Your task to perform on an android device: Search for good Indian restaurants Image 0: 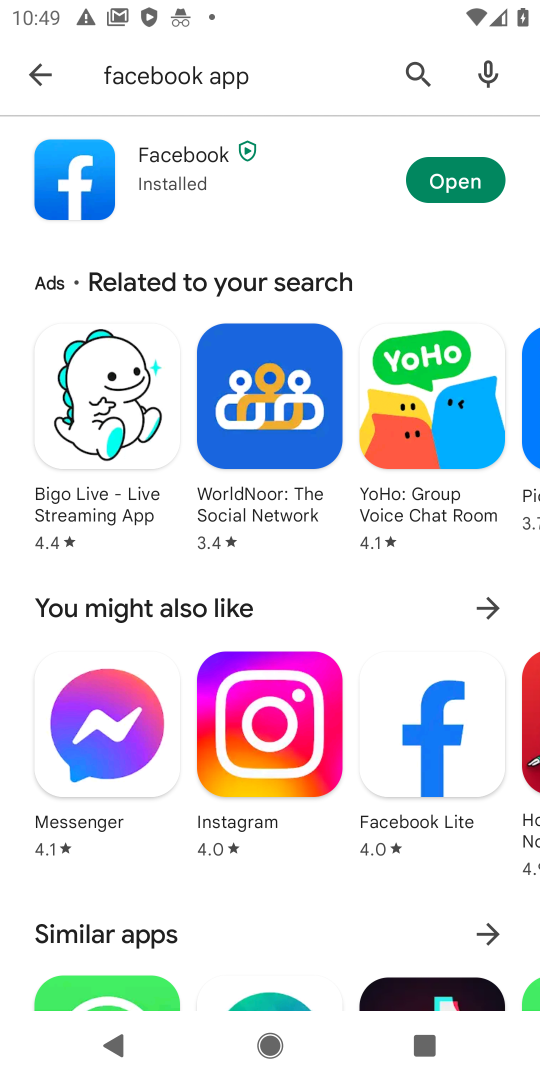
Step 0: press home button
Your task to perform on an android device: Search for good Indian restaurants Image 1: 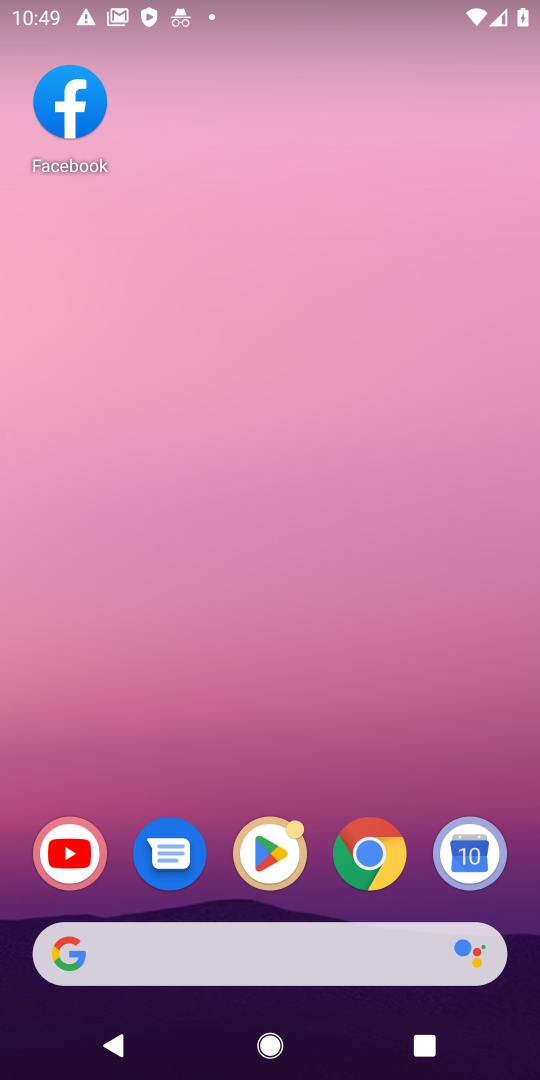
Step 1: click (337, 950)
Your task to perform on an android device: Search for good Indian restaurants Image 2: 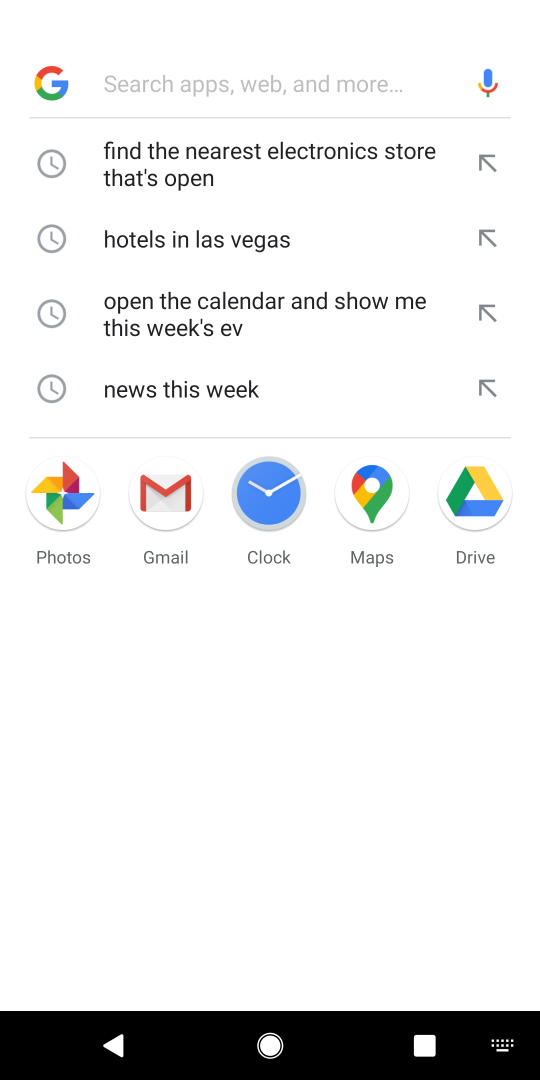
Step 2: type "good Indian restaurants"
Your task to perform on an android device: Search for good Indian restaurants Image 3: 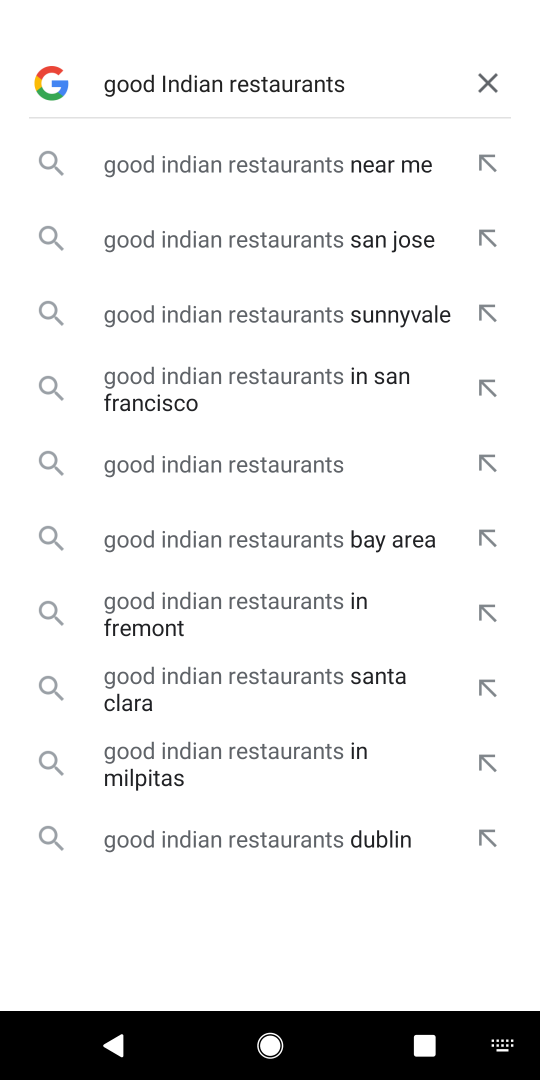
Step 3: press enter
Your task to perform on an android device: Search for good Indian restaurants Image 4: 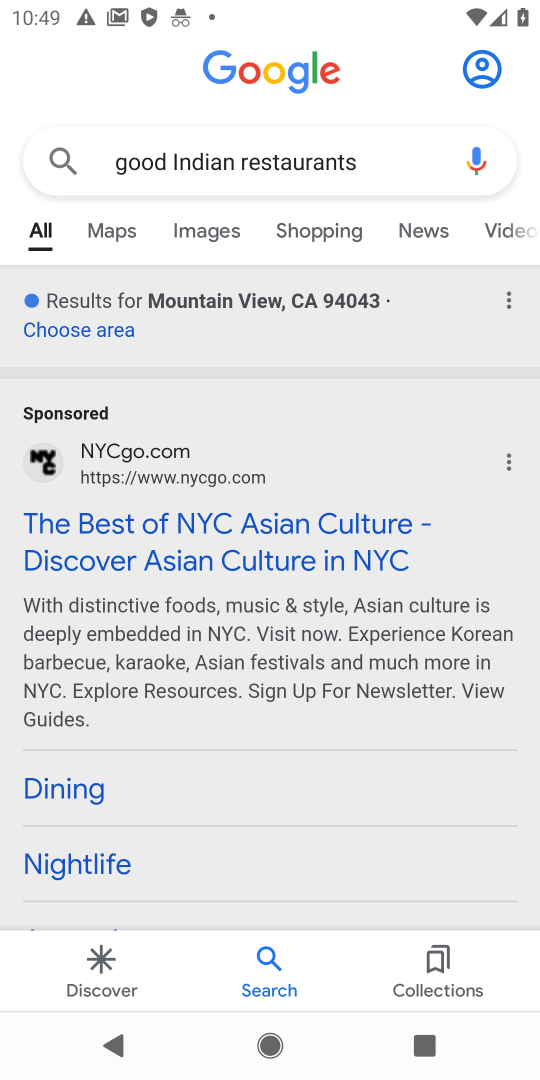
Step 4: task complete